Your task to perform on an android device: all mails in gmail Image 0: 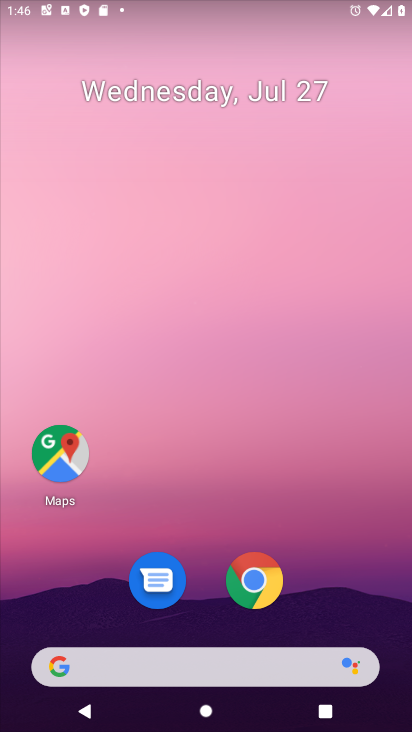
Step 0: drag from (251, 663) to (213, 101)
Your task to perform on an android device: all mails in gmail Image 1: 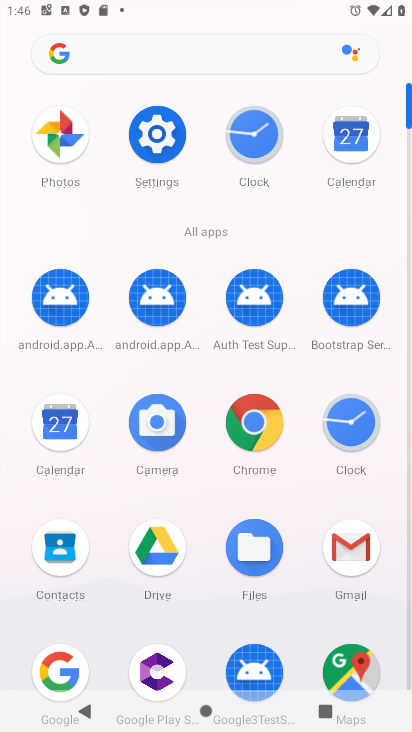
Step 1: click (336, 547)
Your task to perform on an android device: all mails in gmail Image 2: 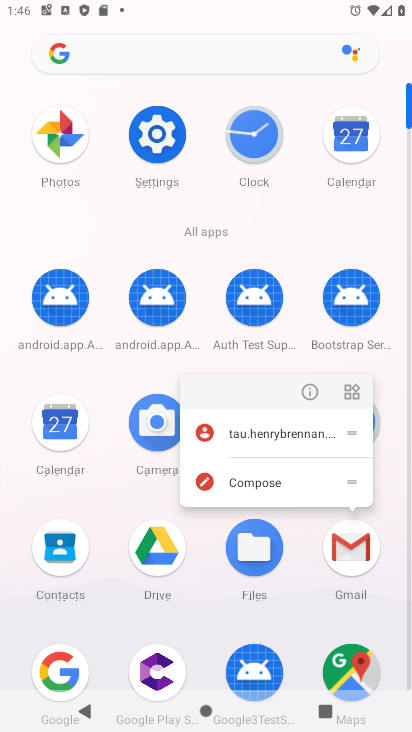
Step 2: click (335, 558)
Your task to perform on an android device: all mails in gmail Image 3: 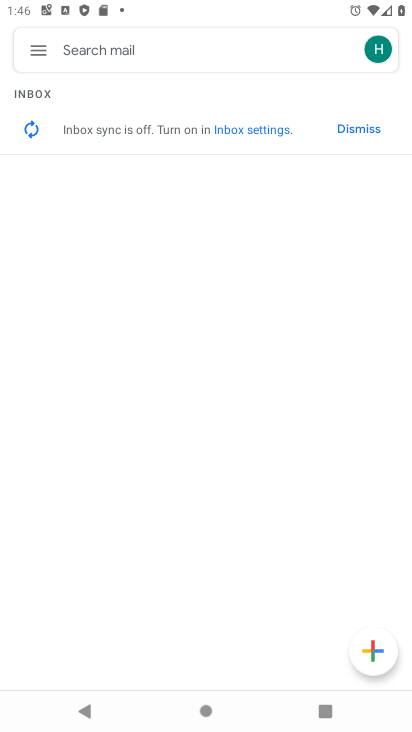
Step 3: click (39, 58)
Your task to perform on an android device: all mails in gmail Image 4: 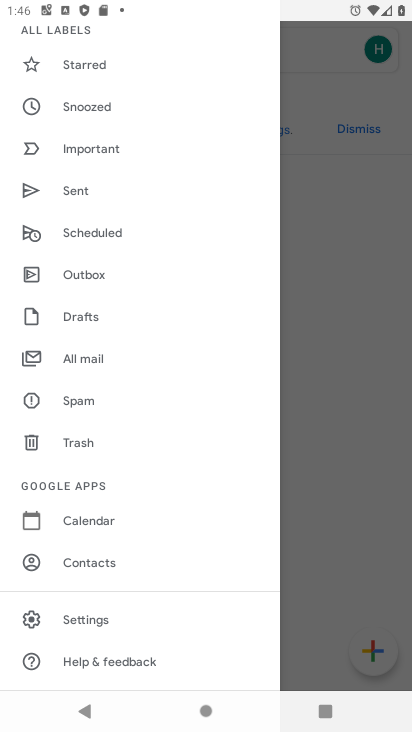
Step 4: click (101, 355)
Your task to perform on an android device: all mails in gmail Image 5: 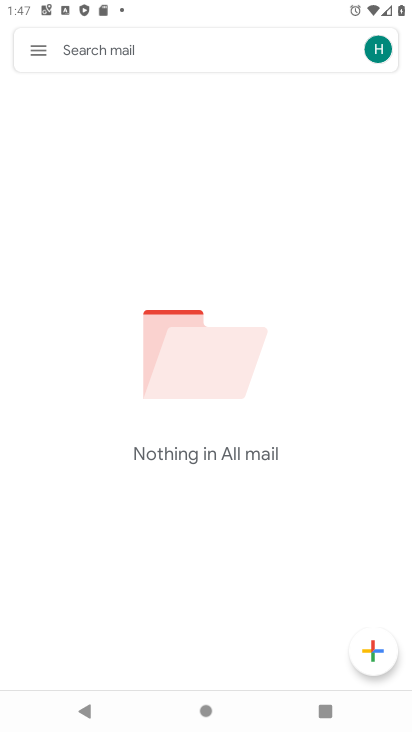
Step 5: task complete